Your task to perform on an android device: Open network settings Image 0: 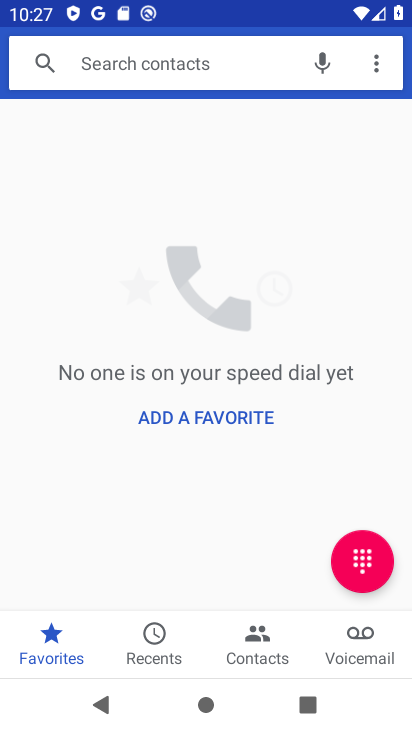
Step 0: press back button
Your task to perform on an android device: Open network settings Image 1: 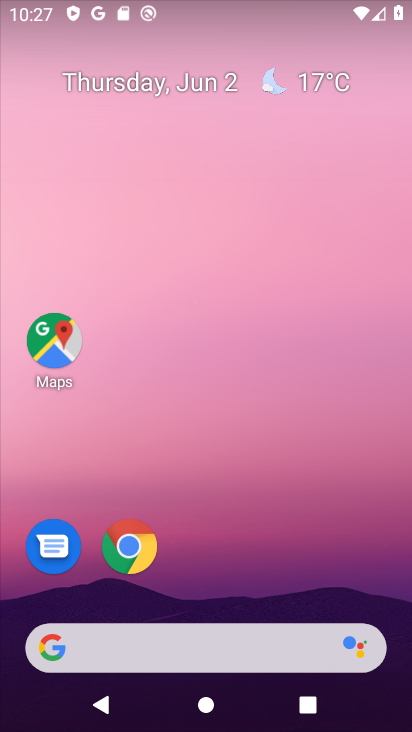
Step 1: drag from (240, 180) to (234, 1)
Your task to perform on an android device: Open network settings Image 2: 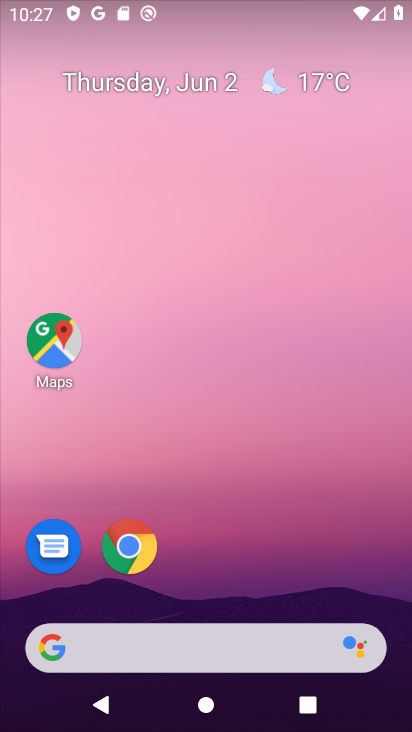
Step 2: drag from (261, 511) to (208, 11)
Your task to perform on an android device: Open network settings Image 3: 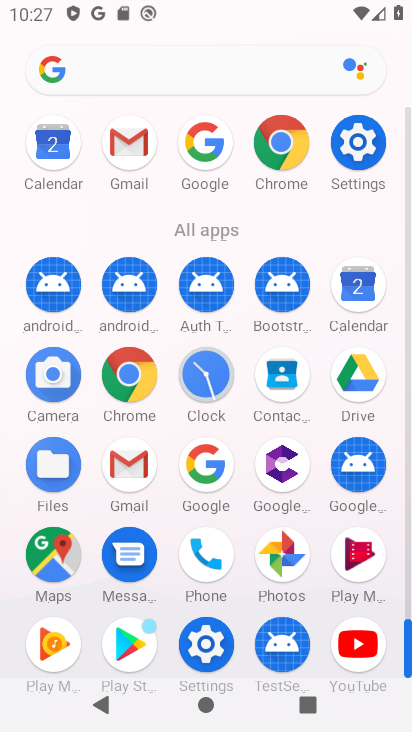
Step 3: click (359, 139)
Your task to perform on an android device: Open network settings Image 4: 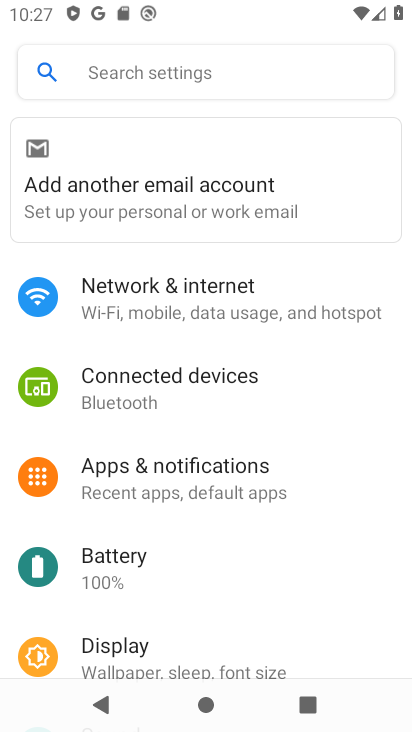
Step 4: click (257, 292)
Your task to perform on an android device: Open network settings Image 5: 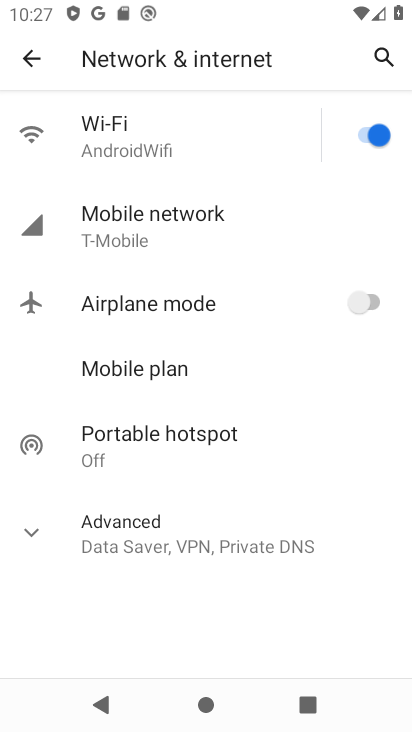
Step 5: click (38, 524)
Your task to perform on an android device: Open network settings Image 6: 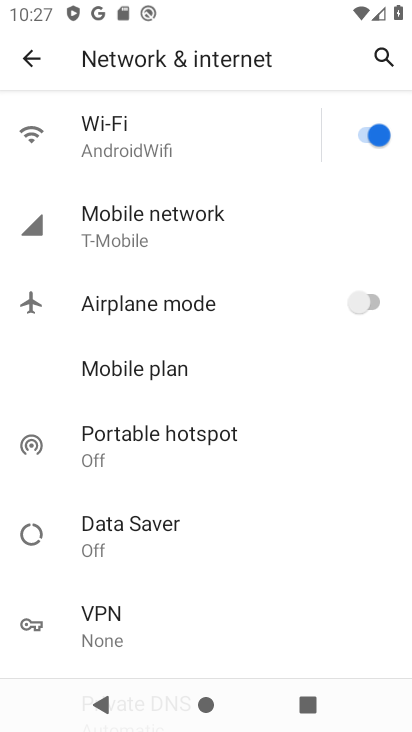
Step 6: task complete